Your task to perform on an android device: Open Chrome and go to settings Image 0: 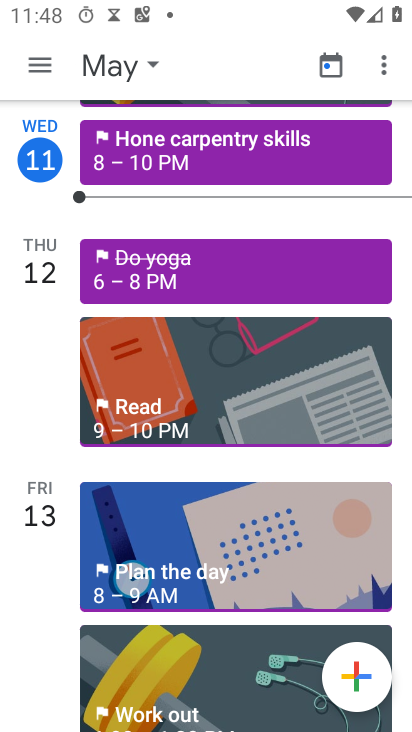
Step 0: press home button
Your task to perform on an android device: Open Chrome and go to settings Image 1: 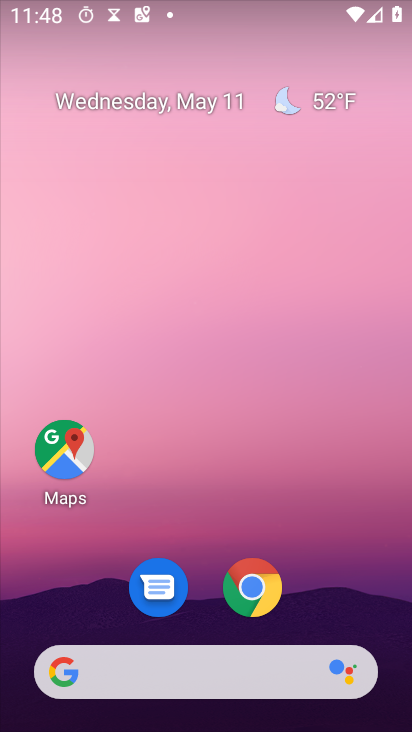
Step 1: drag from (158, 697) to (319, 196)
Your task to perform on an android device: Open Chrome and go to settings Image 2: 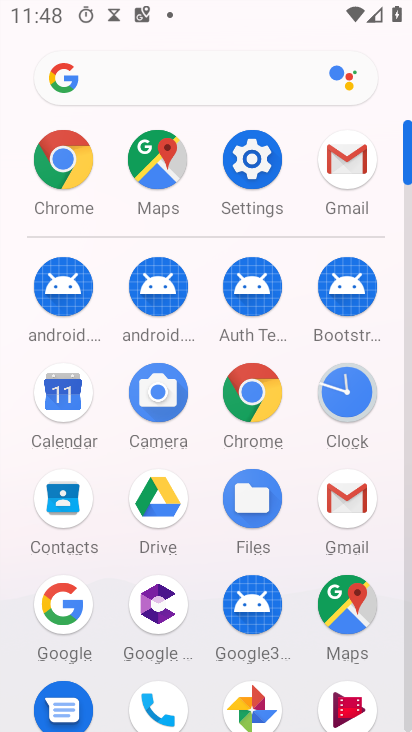
Step 2: click (230, 403)
Your task to perform on an android device: Open Chrome and go to settings Image 3: 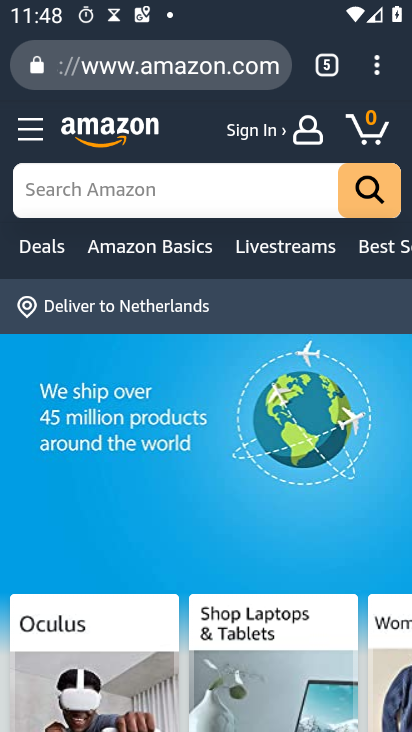
Step 3: click (375, 66)
Your task to perform on an android device: Open Chrome and go to settings Image 4: 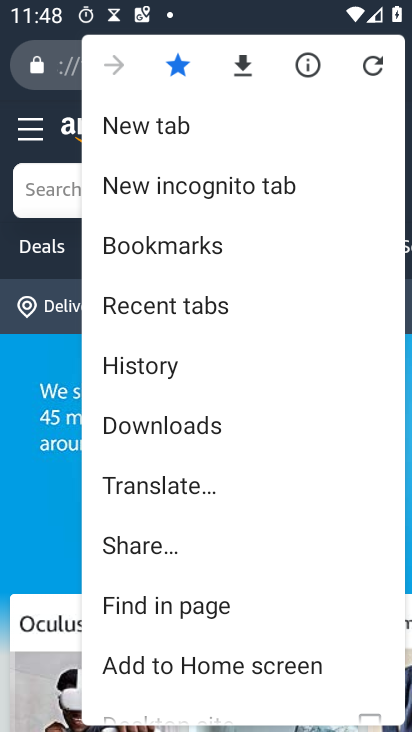
Step 4: drag from (157, 658) to (266, 436)
Your task to perform on an android device: Open Chrome and go to settings Image 5: 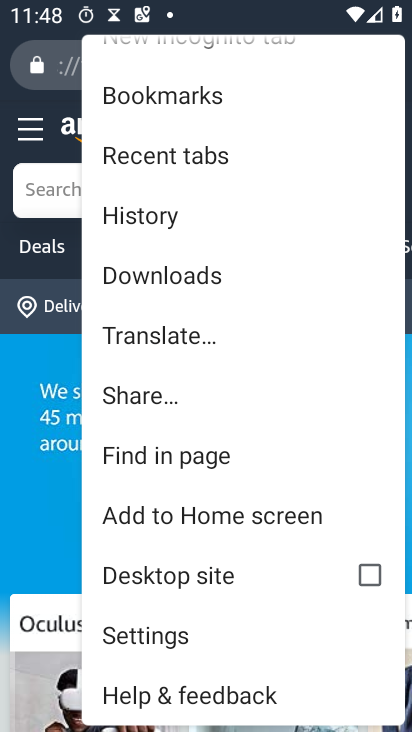
Step 5: click (141, 631)
Your task to perform on an android device: Open Chrome and go to settings Image 6: 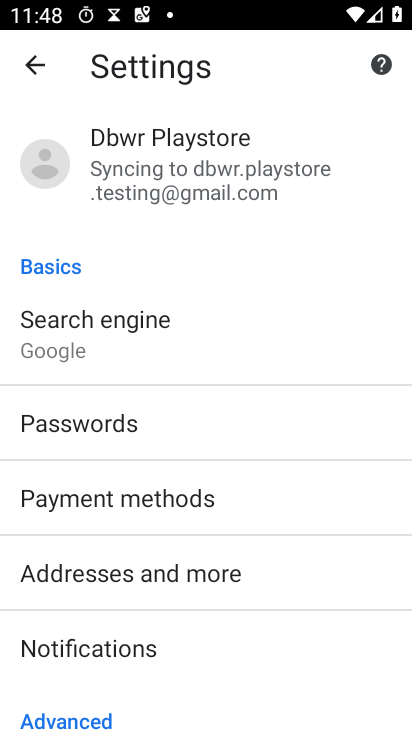
Step 6: task complete